Your task to perform on an android device: toggle notifications settings in the gmail app Image 0: 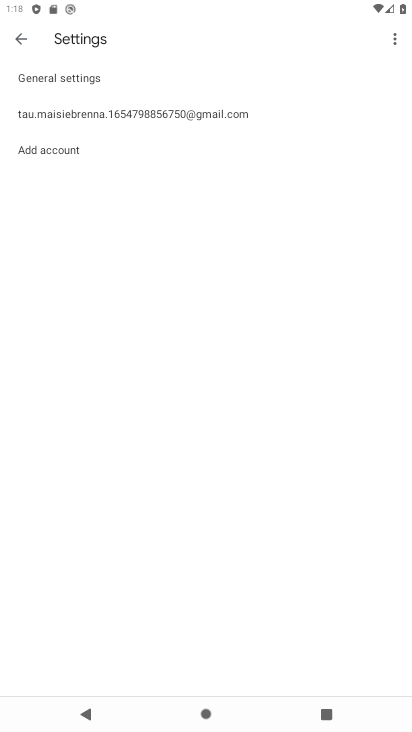
Step 0: press home button
Your task to perform on an android device: toggle notifications settings in the gmail app Image 1: 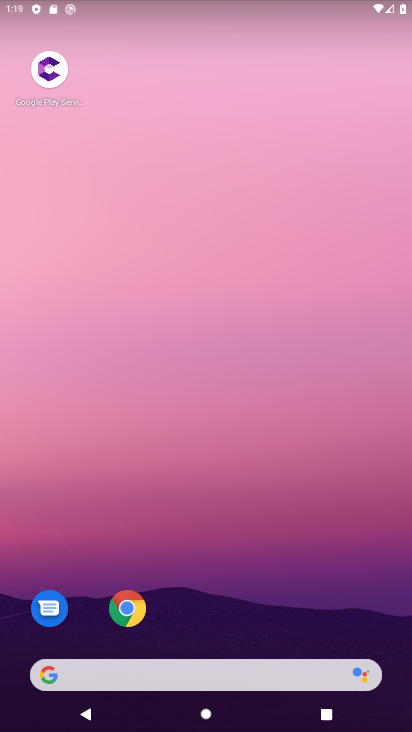
Step 1: drag from (328, 551) to (349, 223)
Your task to perform on an android device: toggle notifications settings in the gmail app Image 2: 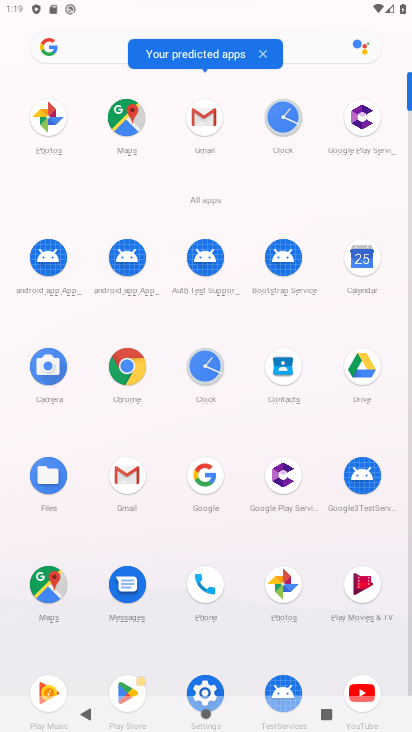
Step 2: click (115, 480)
Your task to perform on an android device: toggle notifications settings in the gmail app Image 3: 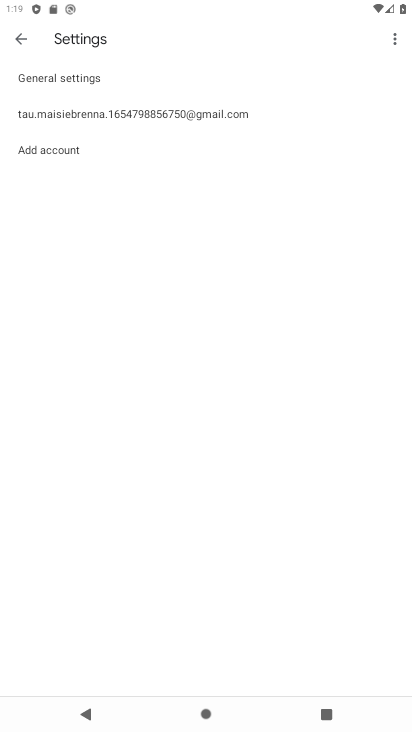
Step 3: press home button
Your task to perform on an android device: toggle notifications settings in the gmail app Image 4: 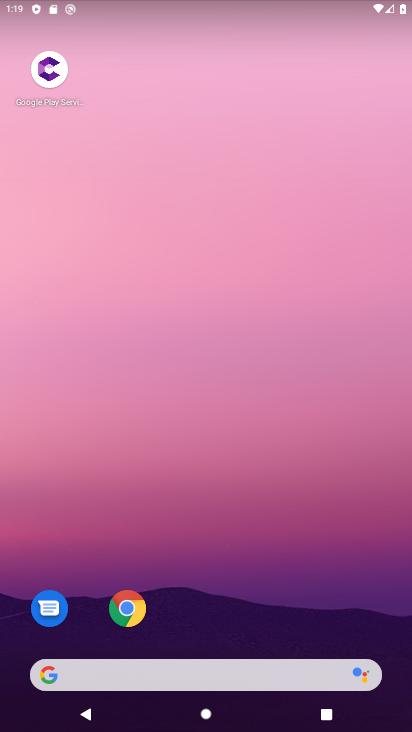
Step 4: drag from (255, 544) to (229, 256)
Your task to perform on an android device: toggle notifications settings in the gmail app Image 5: 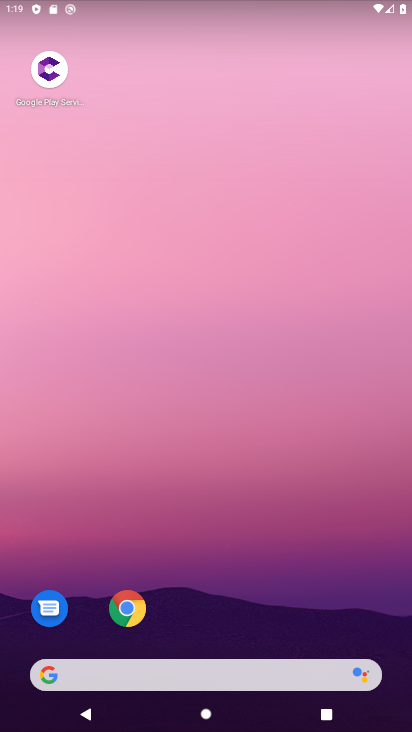
Step 5: drag from (270, 559) to (284, 137)
Your task to perform on an android device: toggle notifications settings in the gmail app Image 6: 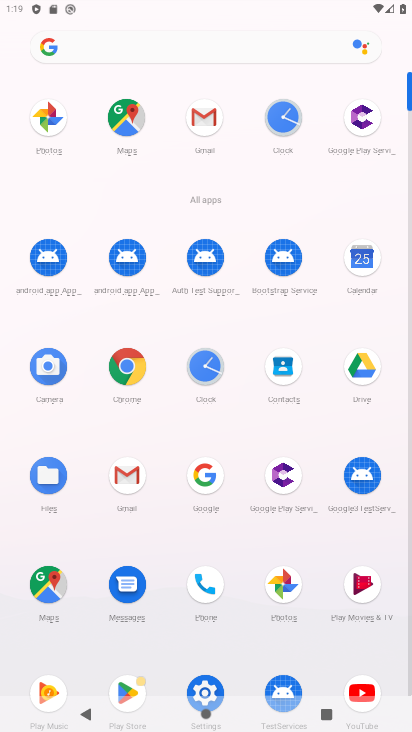
Step 6: click (136, 485)
Your task to perform on an android device: toggle notifications settings in the gmail app Image 7: 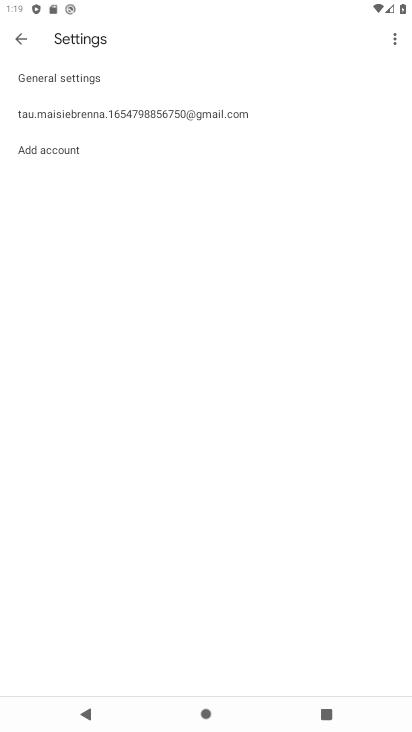
Step 7: click (20, 31)
Your task to perform on an android device: toggle notifications settings in the gmail app Image 8: 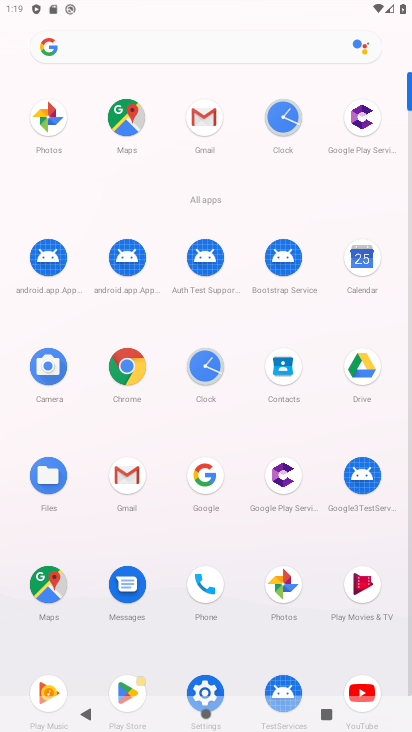
Step 8: click (130, 478)
Your task to perform on an android device: toggle notifications settings in the gmail app Image 9: 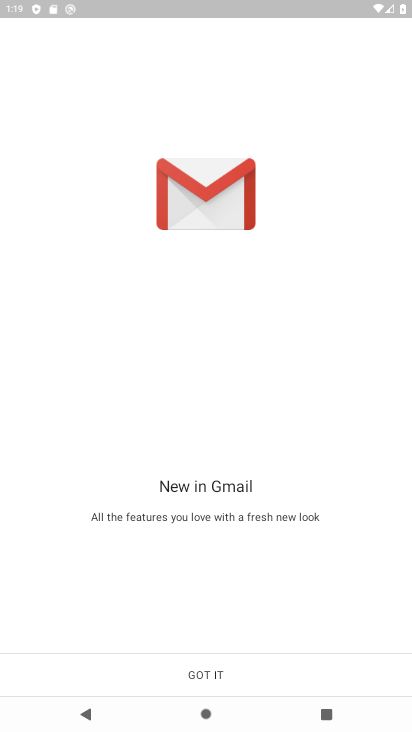
Step 9: click (202, 672)
Your task to perform on an android device: toggle notifications settings in the gmail app Image 10: 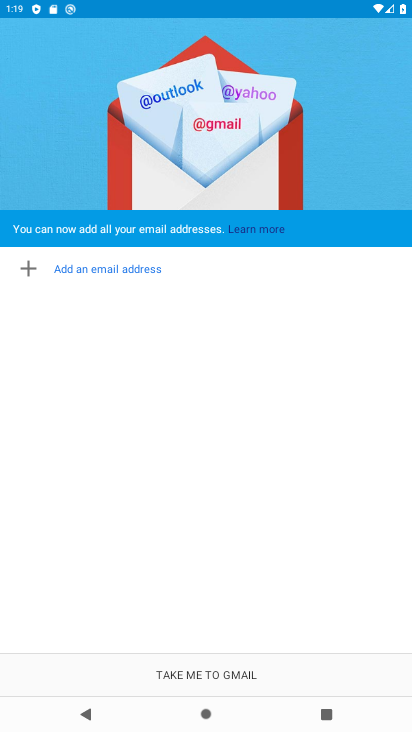
Step 10: click (202, 672)
Your task to perform on an android device: toggle notifications settings in the gmail app Image 11: 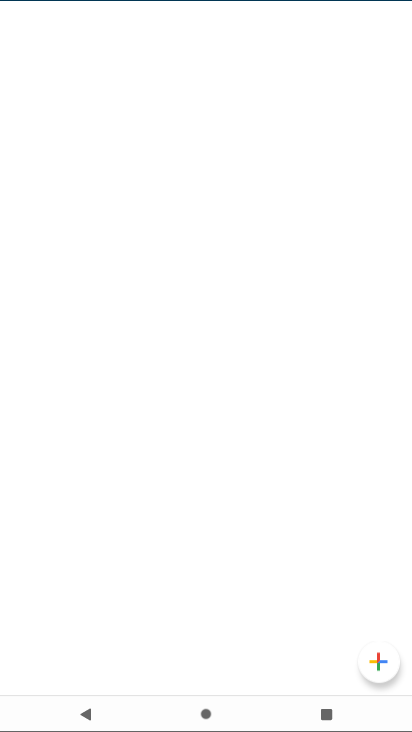
Step 11: click (202, 672)
Your task to perform on an android device: toggle notifications settings in the gmail app Image 12: 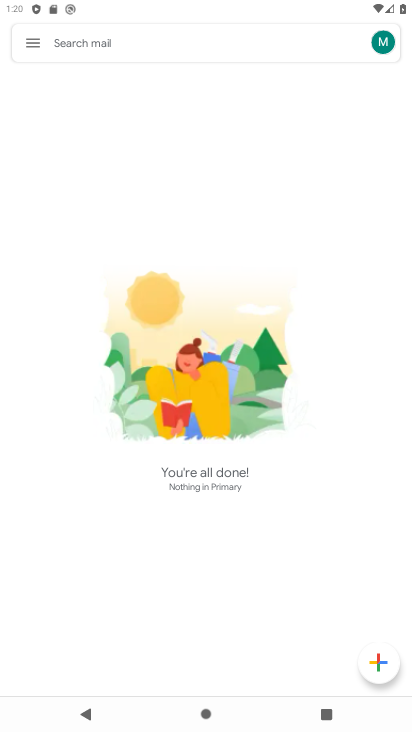
Step 12: task complete